Your task to perform on an android device: empty trash in the gmail app Image 0: 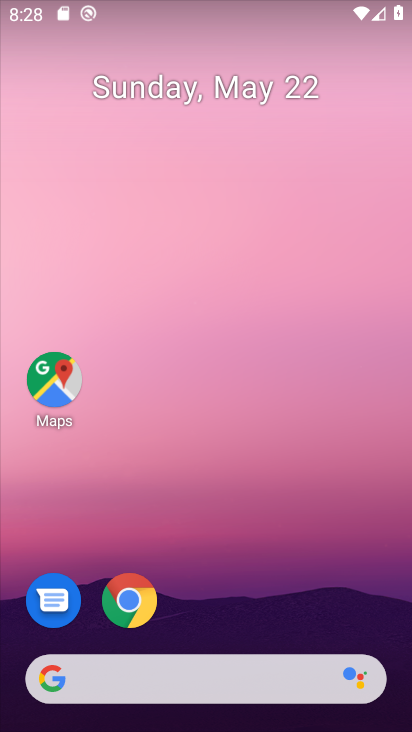
Step 0: drag from (228, 511) to (228, 324)
Your task to perform on an android device: empty trash in the gmail app Image 1: 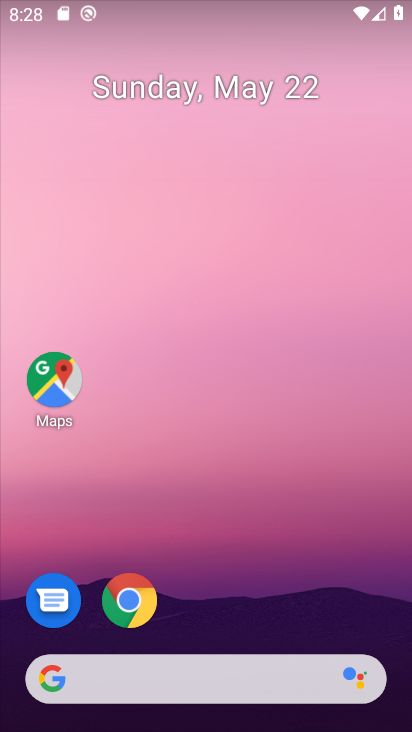
Step 1: drag from (235, 653) to (247, 219)
Your task to perform on an android device: empty trash in the gmail app Image 2: 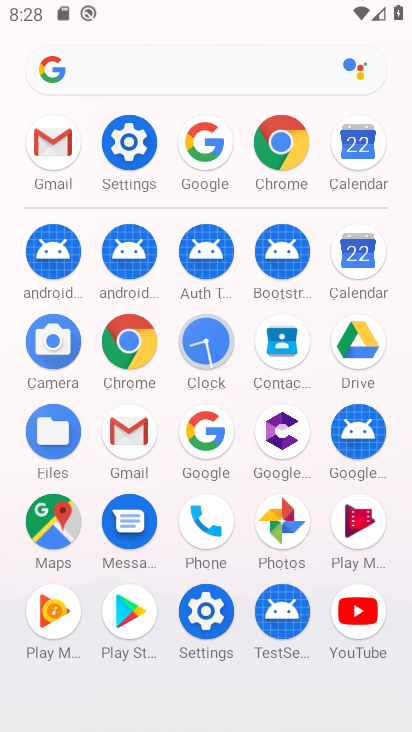
Step 2: click (49, 159)
Your task to perform on an android device: empty trash in the gmail app Image 3: 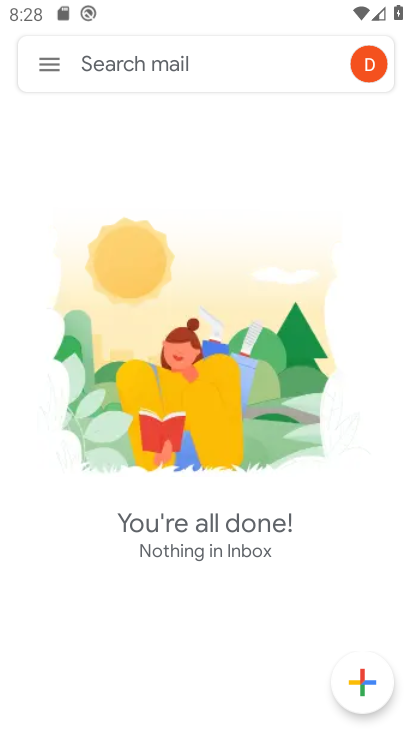
Step 3: click (43, 73)
Your task to perform on an android device: empty trash in the gmail app Image 4: 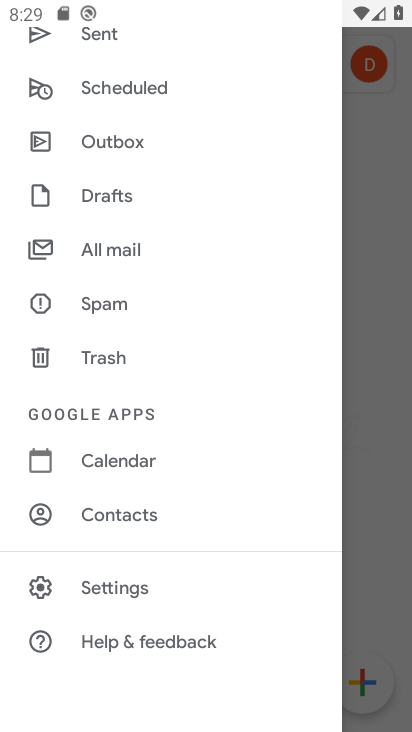
Step 4: click (126, 340)
Your task to perform on an android device: empty trash in the gmail app Image 5: 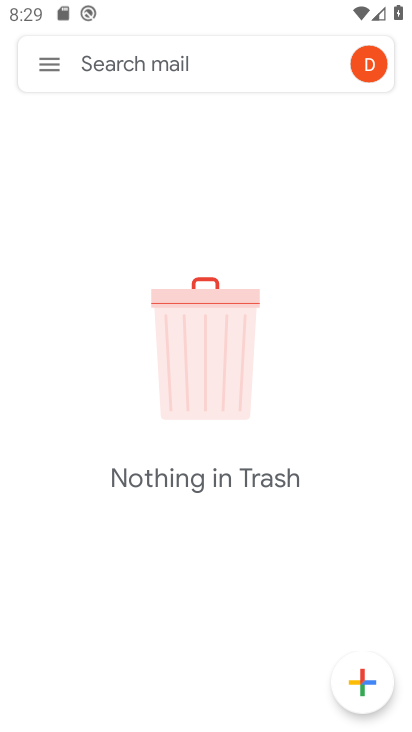
Step 5: task complete